Your task to perform on an android device: Search for flights from Zurich to Buenos aires Image 0: 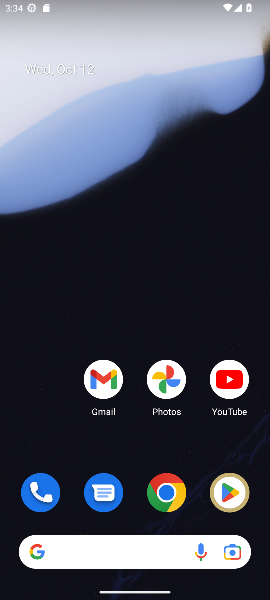
Step 0: click (170, 490)
Your task to perform on an android device: Search for flights from Zurich to Buenos aires Image 1: 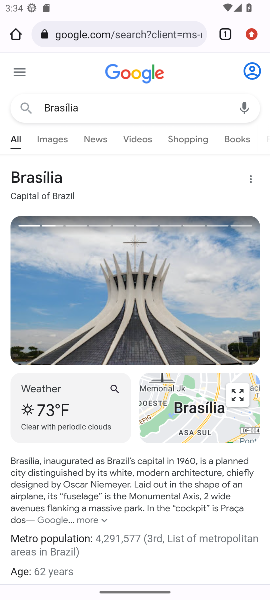
Step 1: click (94, 108)
Your task to perform on an android device: Search for flights from Zurich to Buenos aires Image 2: 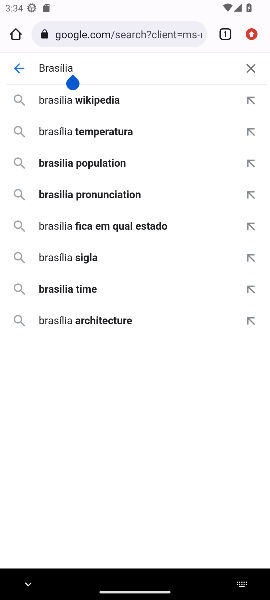
Step 2: click (253, 71)
Your task to perform on an android device: Search for flights from Zurich to Buenos aires Image 3: 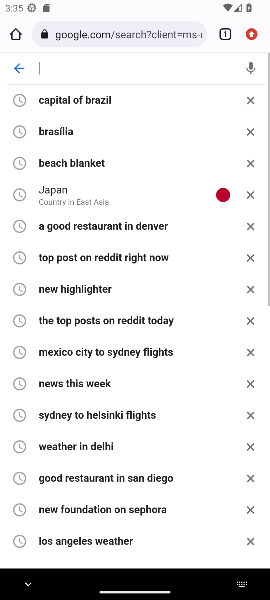
Step 3: type " Zurich to Buenos aires flights "
Your task to perform on an android device: Search for flights from Zurich to Buenos aires Image 4: 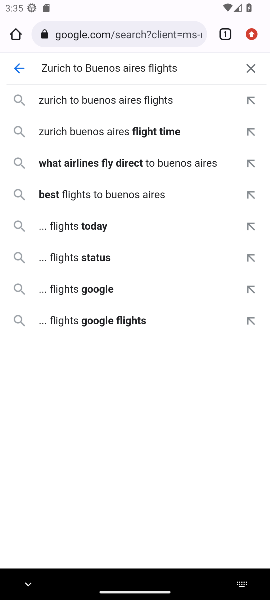
Step 4: click (83, 101)
Your task to perform on an android device: Search for flights from Zurich to Buenos aires Image 5: 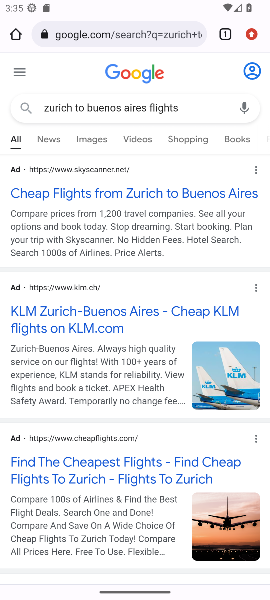
Step 5: click (91, 211)
Your task to perform on an android device: Search for flights from Zurich to Buenos aires Image 6: 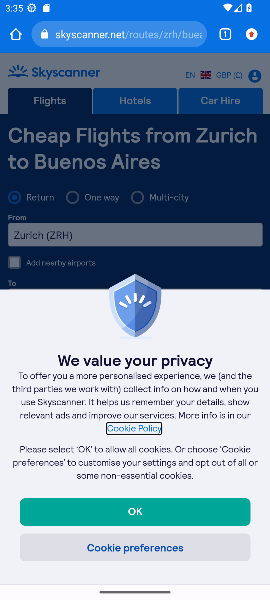
Step 6: task complete